Your task to perform on an android device: open chrome and create a bookmark for the current page Image 0: 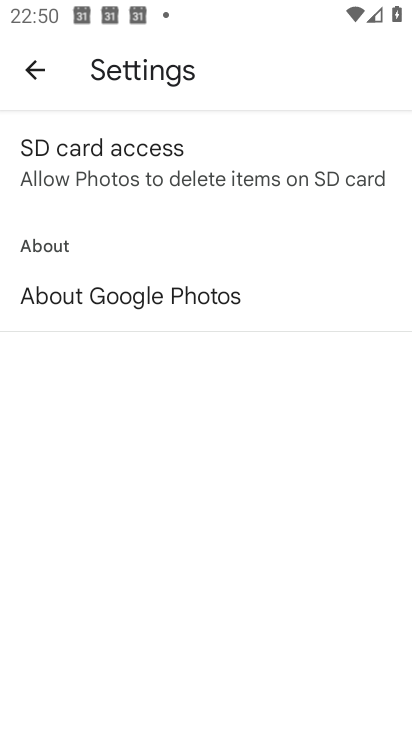
Step 0: press home button
Your task to perform on an android device: open chrome and create a bookmark for the current page Image 1: 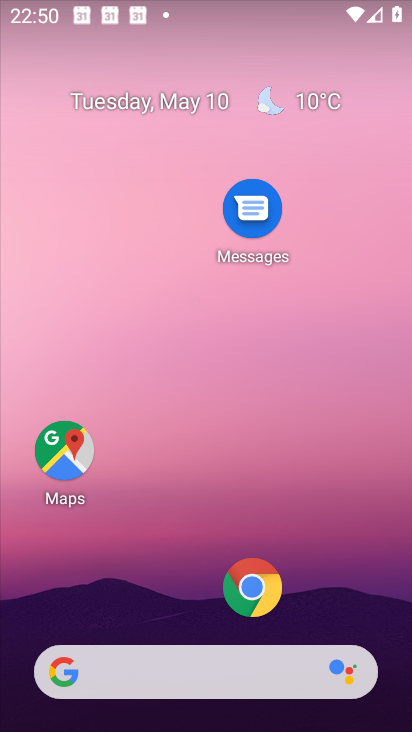
Step 1: click (261, 585)
Your task to perform on an android device: open chrome and create a bookmark for the current page Image 2: 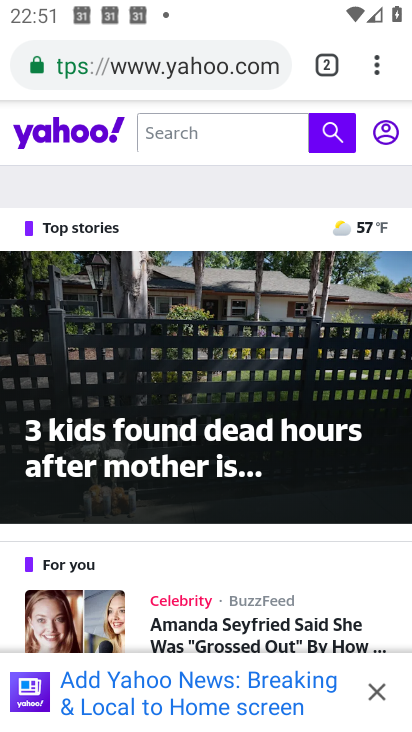
Step 2: click (382, 69)
Your task to perform on an android device: open chrome and create a bookmark for the current page Image 3: 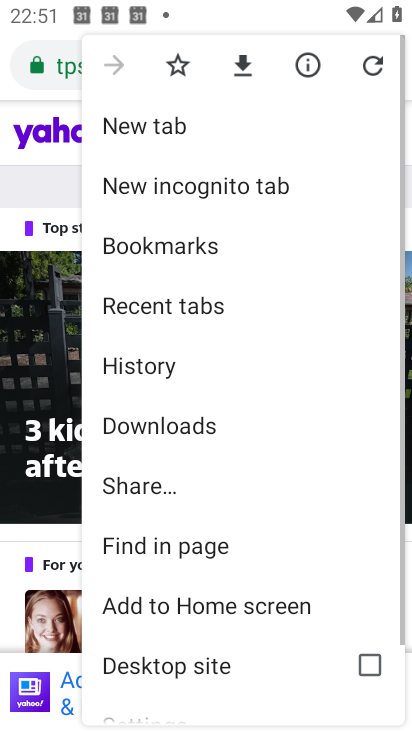
Step 3: drag from (215, 569) to (242, 345)
Your task to perform on an android device: open chrome and create a bookmark for the current page Image 4: 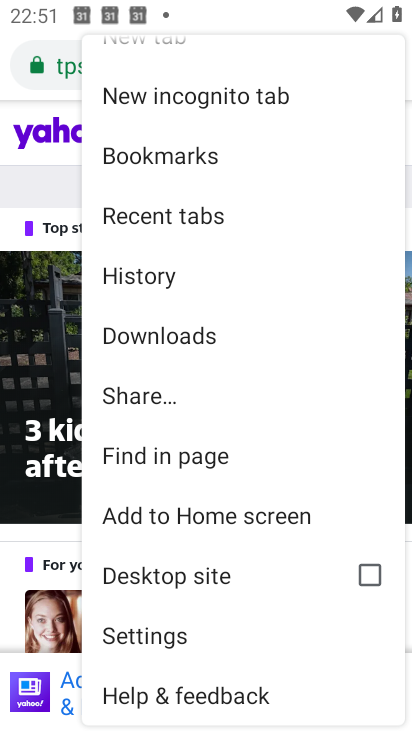
Step 4: click (62, 174)
Your task to perform on an android device: open chrome and create a bookmark for the current page Image 5: 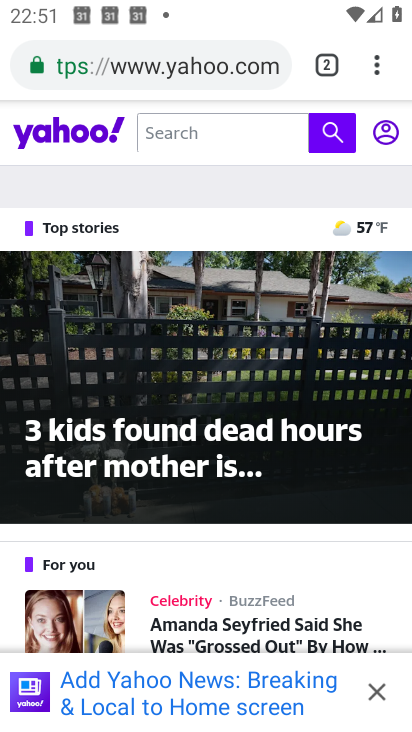
Step 5: click (380, 52)
Your task to perform on an android device: open chrome and create a bookmark for the current page Image 6: 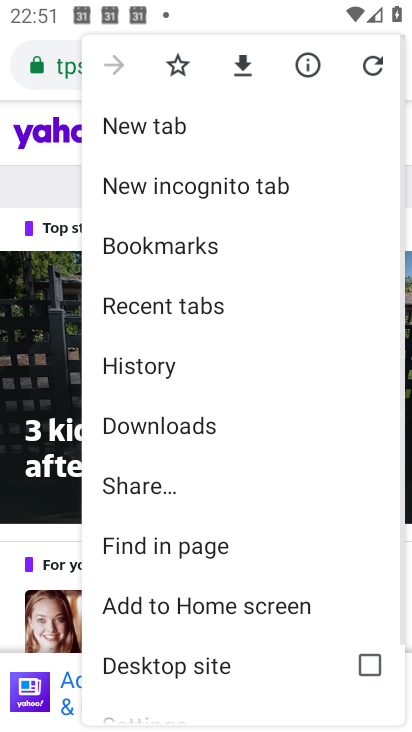
Step 6: click (177, 64)
Your task to perform on an android device: open chrome and create a bookmark for the current page Image 7: 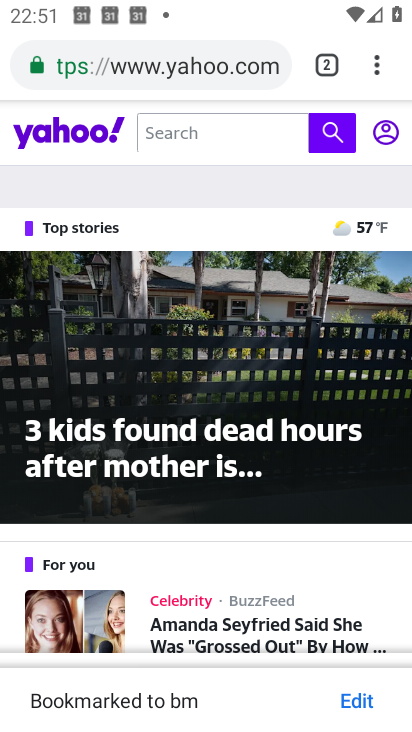
Step 7: task complete